Your task to perform on an android device: Go to Google maps Image 0: 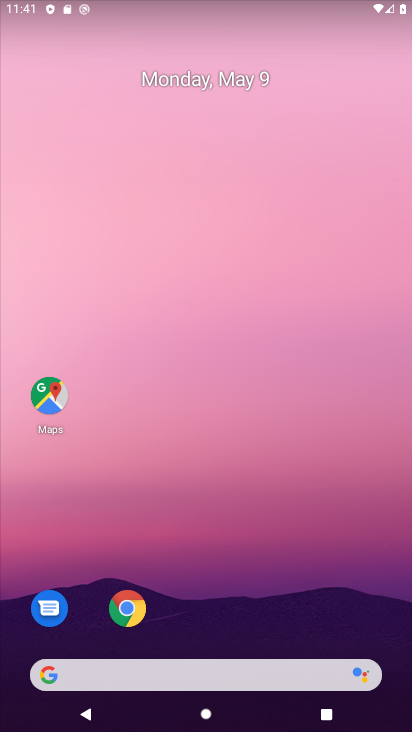
Step 0: click (52, 401)
Your task to perform on an android device: Go to Google maps Image 1: 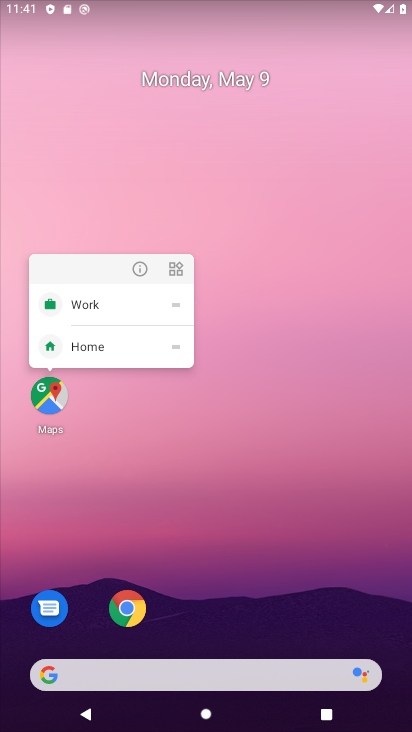
Step 1: click (54, 400)
Your task to perform on an android device: Go to Google maps Image 2: 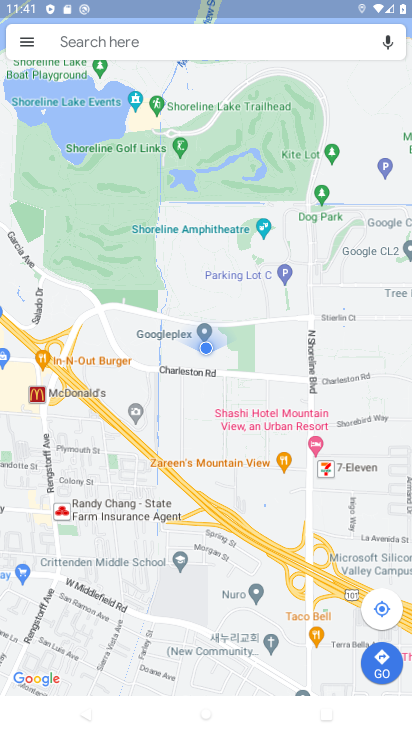
Step 2: task complete